Your task to perform on an android device: Is it going to rain today? Image 0: 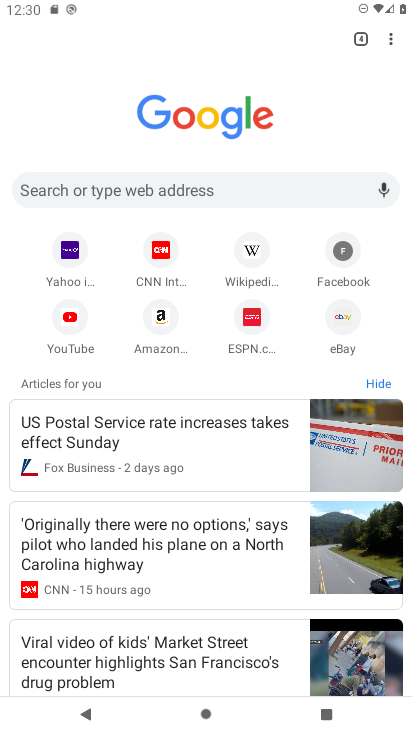
Step 0: click (193, 186)
Your task to perform on an android device: Is it going to rain today? Image 1: 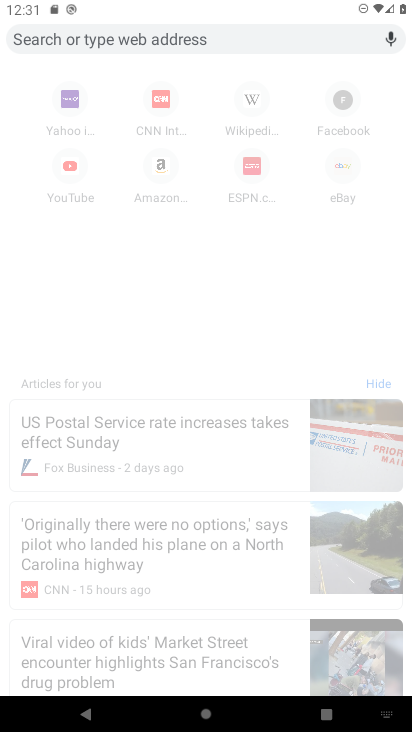
Step 1: type "weather"
Your task to perform on an android device: Is it going to rain today? Image 2: 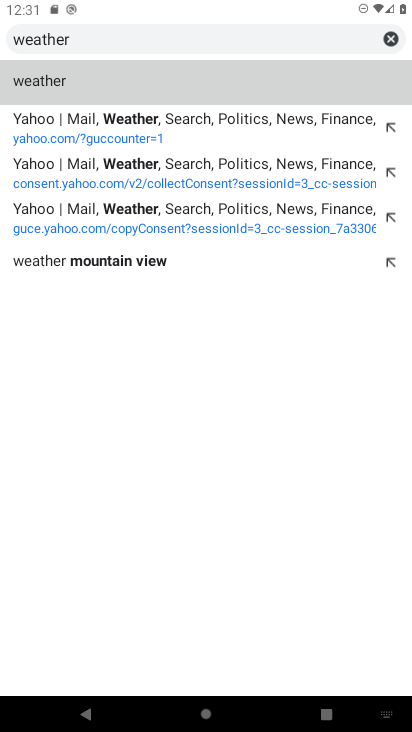
Step 2: click (88, 81)
Your task to perform on an android device: Is it going to rain today? Image 3: 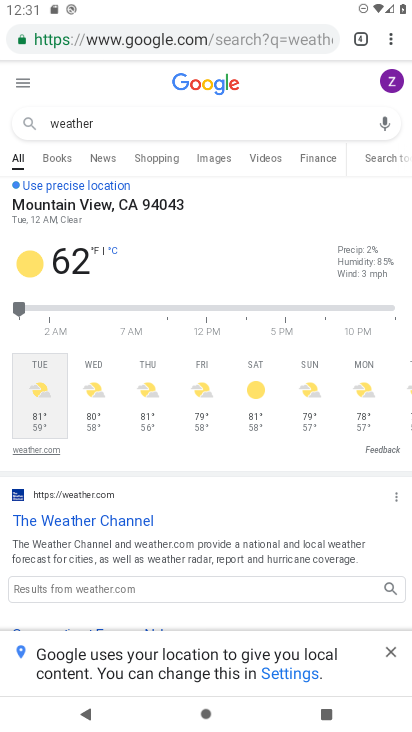
Step 3: click (49, 376)
Your task to perform on an android device: Is it going to rain today? Image 4: 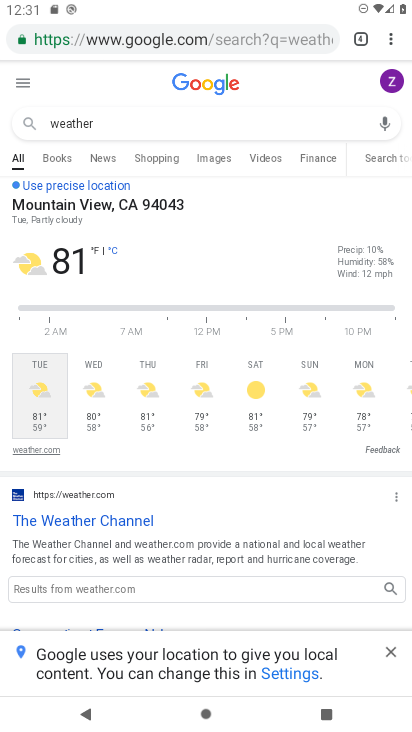
Step 4: task complete